Your task to perform on an android device: check out phone information Image 0: 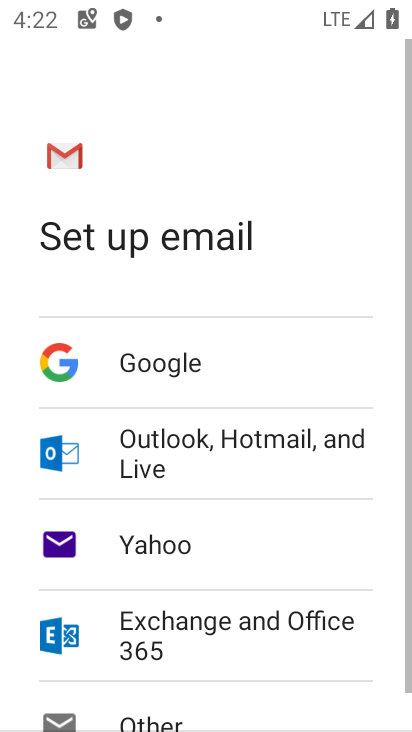
Step 0: press home button
Your task to perform on an android device: check out phone information Image 1: 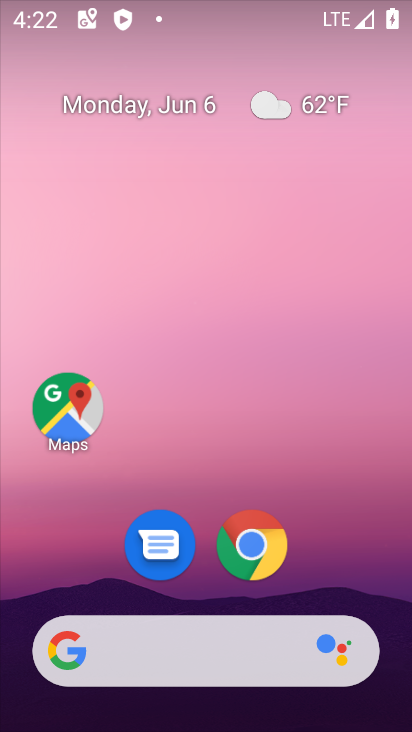
Step 1: drag from (209, 729) to (210, 146)
Your task to perform on an android device: check out phone information Image 2: 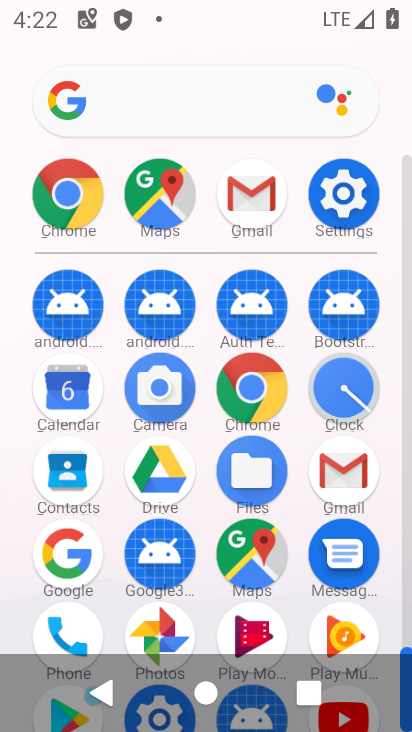
Step 2: click (342, 197)
Your task to perform on an android device: check out phone information Image 3: 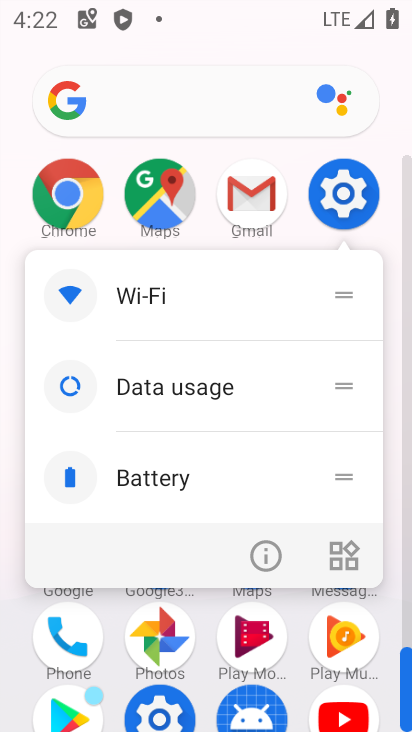
Step 3: click (340, 204)
Your task to perform on an android device: check out phone information Image 4: 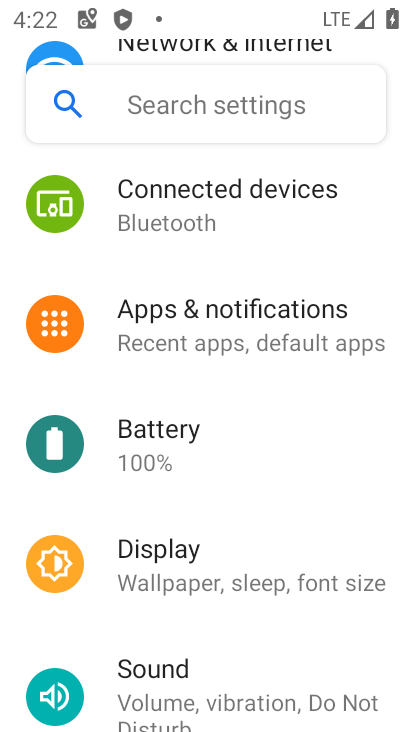
Step 4: drag from (207, 710) to (191, 221)
Your task to perform on an android device: check out phone information Image 5: 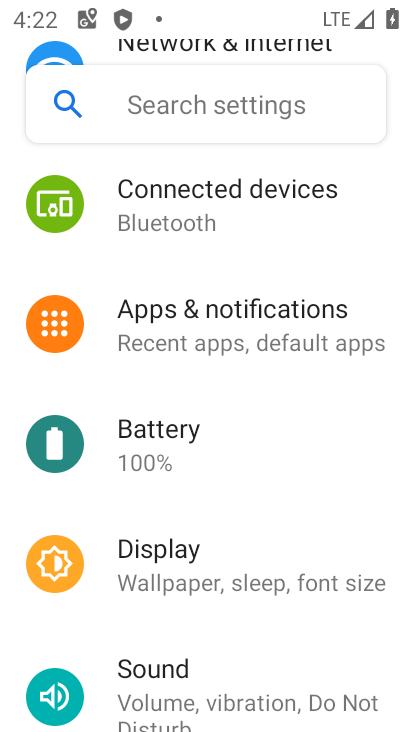
Step 5: drag from (197, 675) to (199, 309)
Your task to perform on an android device: check out phone information Image 6: 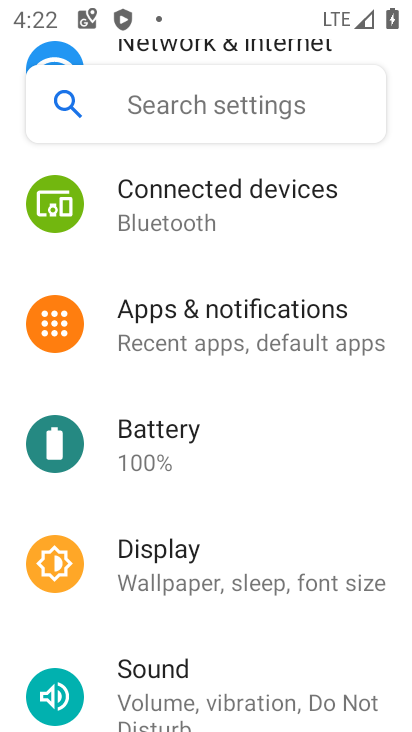
Step 6: drag from (162, 692) to (158, 297)
Your task to perform on an android device: check out phone information Image 7: 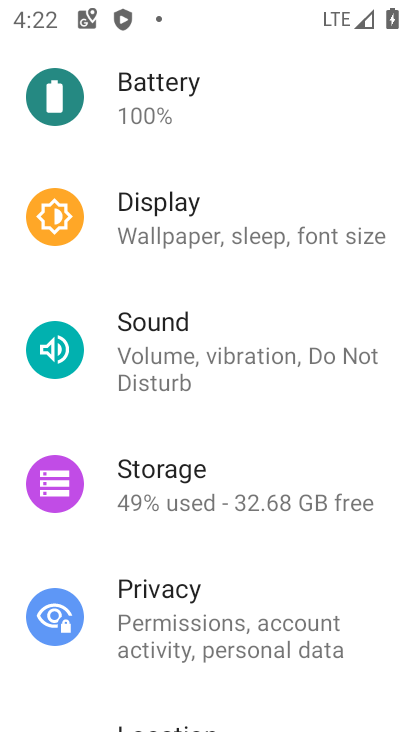
Step 7: drag from (218, 687) to (208, 243)
Your task to perform on an android device: check out phone information Image 8: 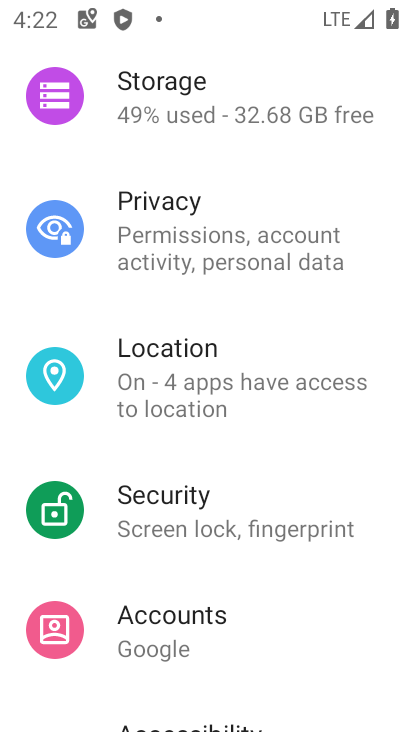
Step 8: drag from (219, 701) to (199, 290)
Your task to perform on an android device: check out phone information Image 9: 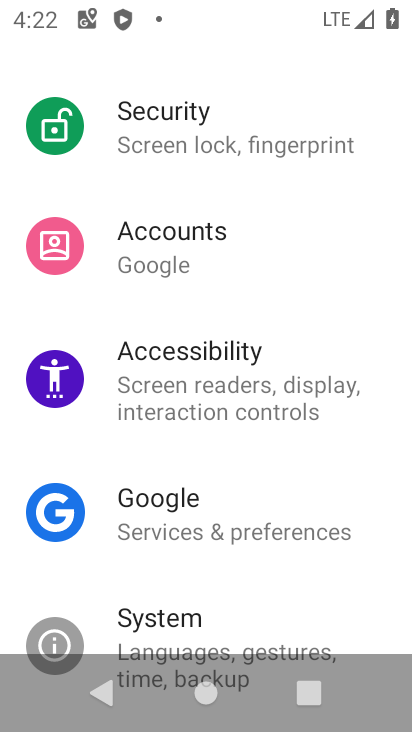
Step 9: drag from (224, 629) to (222, 280)
Your task to perform on an android device: check out phone information Image 10: 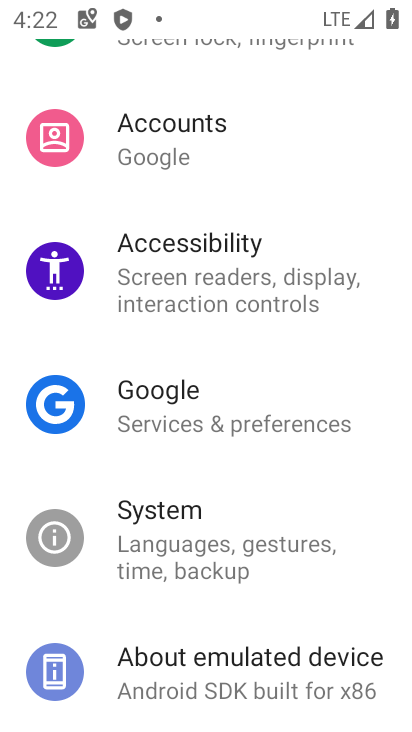
Step 10: click (163, 693)
Your task to perform on an android device: check out phone information Image 11: 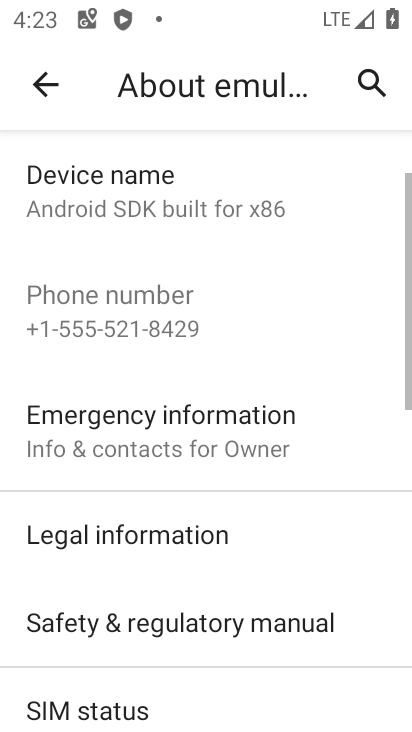
Step 11: task complete